Your task to perform on an android device: turn off wifi Image 0: 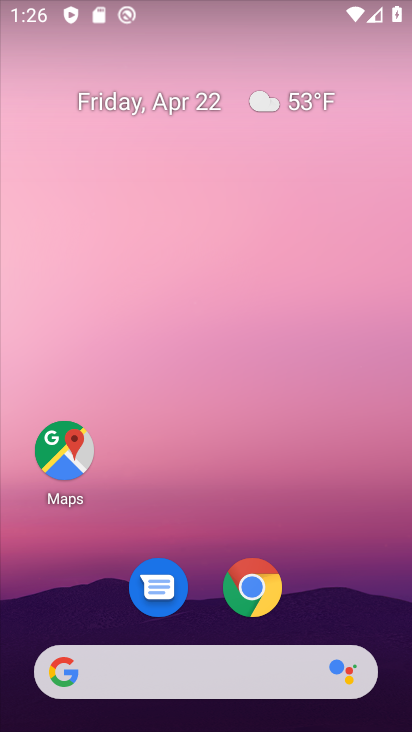
Step 0: drag from (254, 22) to (326, 626)
Your task to perform on an android device: turn off wifi Image 1: 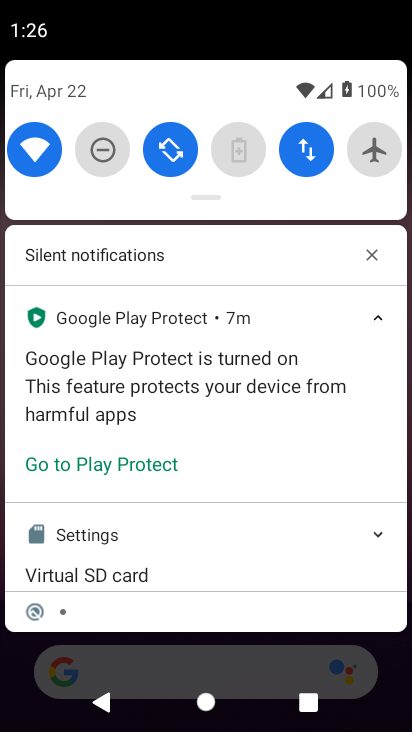
Step 1: click (38, 153)
Your task to perform on an android device: turn off wifi Image 2: 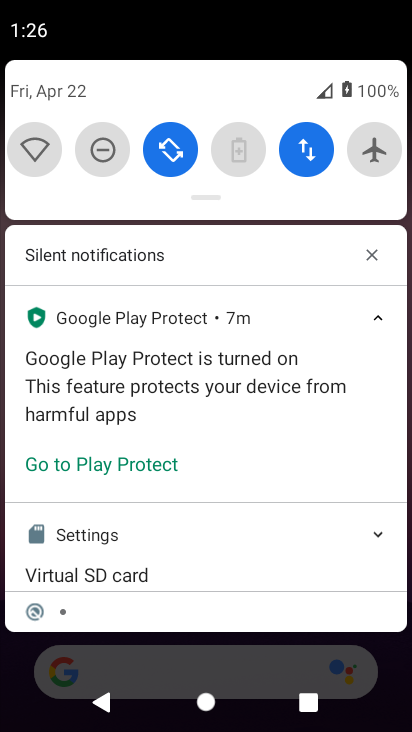
Step 2: task complete